Your task to perform on an android device: Open calendar and show me the second week of next month Image 0: 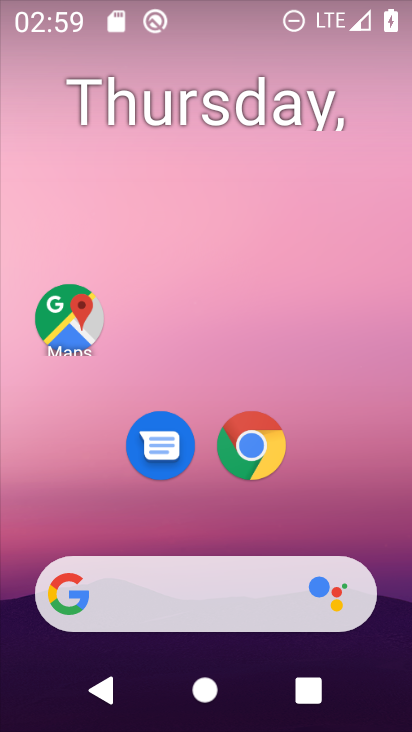
Step 0: press home button
Your task to perform on an android device: Open calendar and show me the second week of next month Image 1: 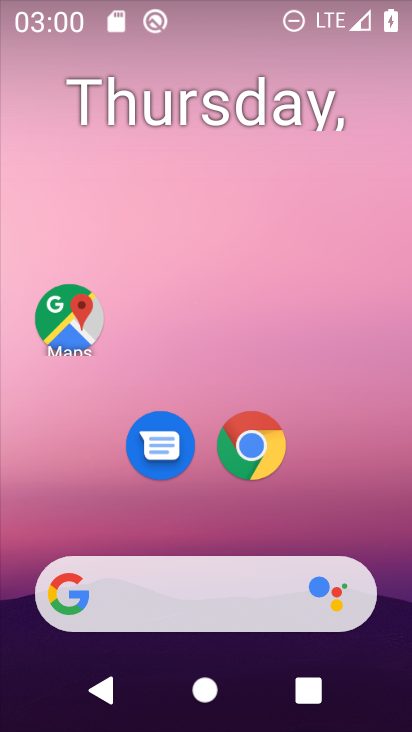
Step 1: drag from (56, 476) to (254, 132)
Your task to perform on an android device: Open calendar and show me the second week of next month Image 2: 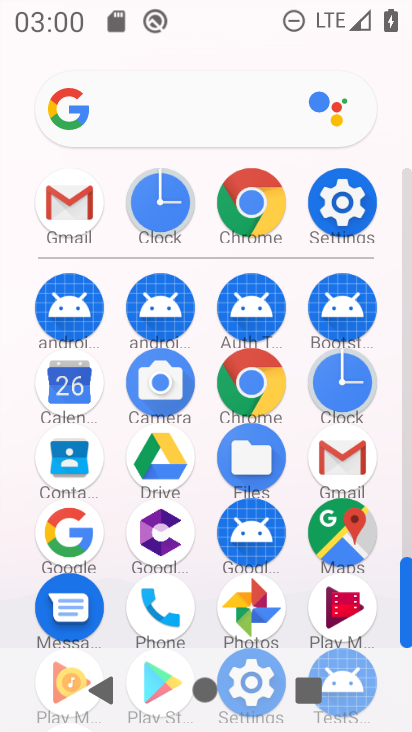
Step 2: click (64, 388)
Your task to perform on an android device: Open calendar and show me the second week of next month Image 3: 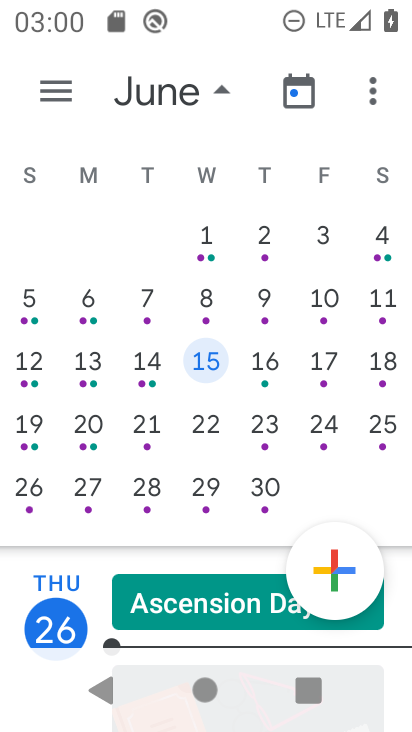
Step 3: click (205, 293)
Your task to perform on an android device: Open calendar and show me the second week of next month Image 4: 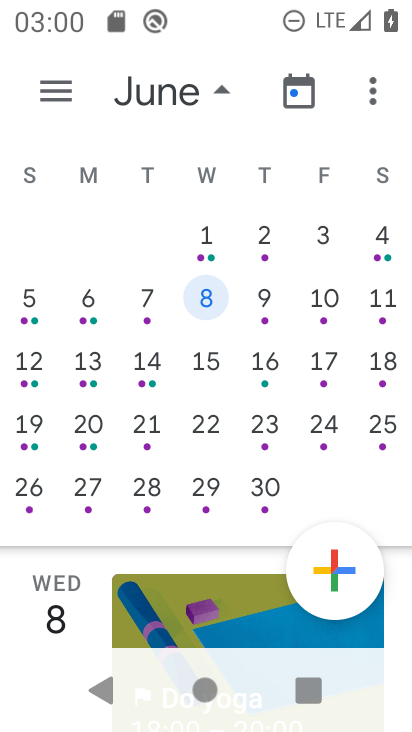
Step 4: click (91, 303)
Your task to perform on an android device: Open calendar and show me the second week of next month Image 5: 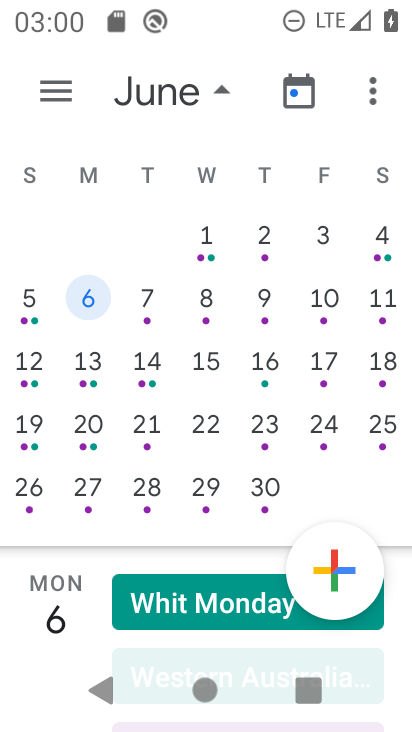
Step 5: click (144, 304)
Your task to perform on an android device: Open calendar and show me the second week of next month Image 6: 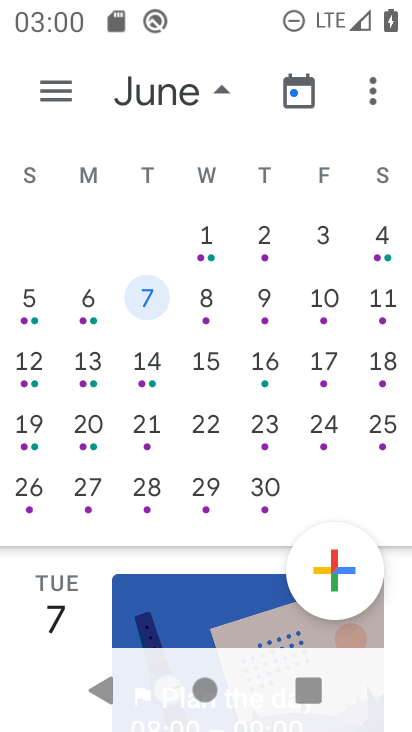
Step 6: click (260, 292)
Your task to perform on an android device: Open calendar and show me the second week of next month Image 7: 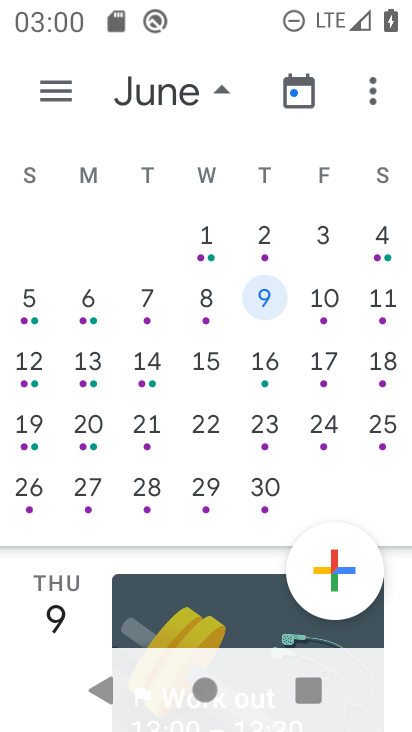
Step 7: click (303, 298)
Your task to perform on an android device: Open calendar and show me the second week of next month Image 8: 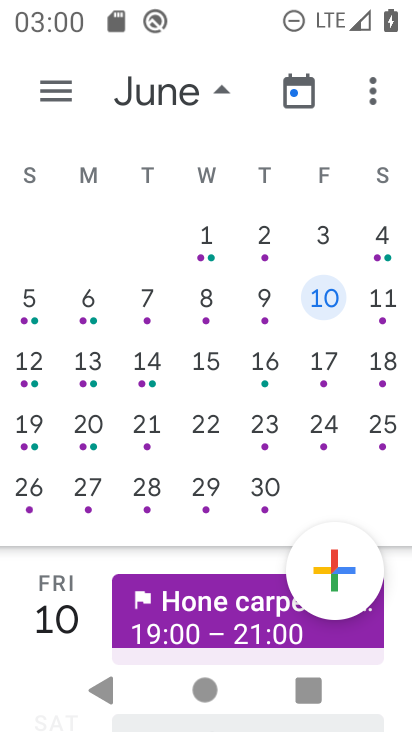
Step 8: click (95, 313)
Your task to perform on an android device: Open calendar and show me the second week of next month Image 9: 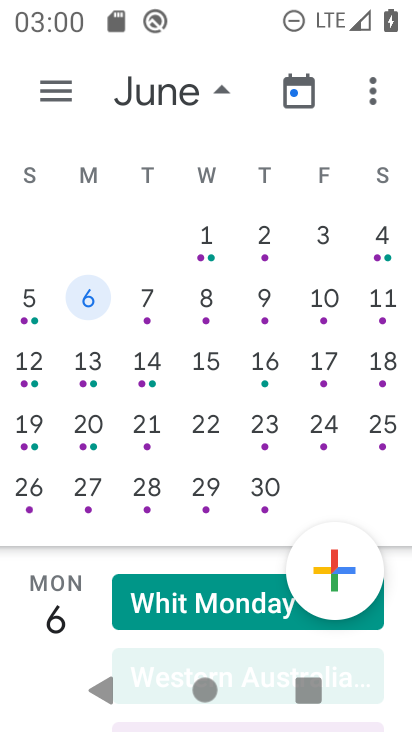
Step 9: click (154, 300)
Your task to perform on an android device: Open calendar and show me the second week of next month Image 10: 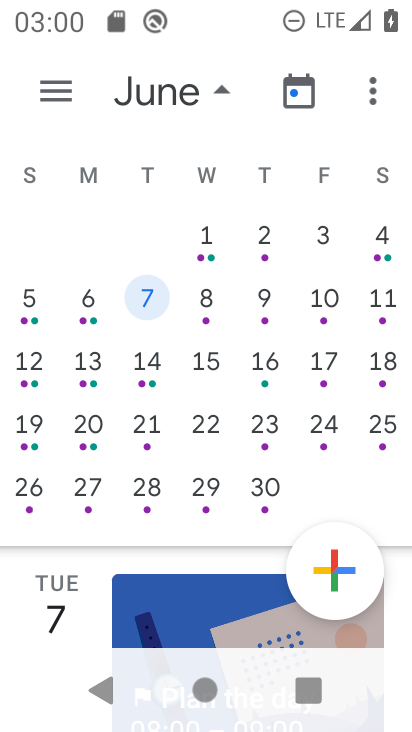
Step 10: click (197, 305)
Your task to perform on an android device: Open calendar and show me the second week of next month Image 11: 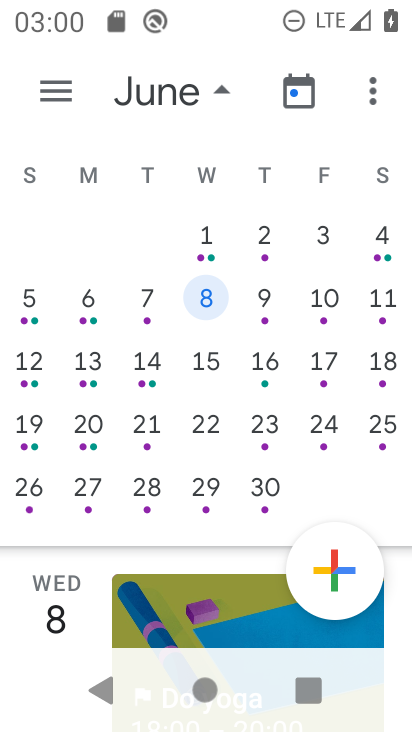
Step 11: click (262, 301)
Your task to perform on an android device: Open calendar and show me the second week of next month Image 12: 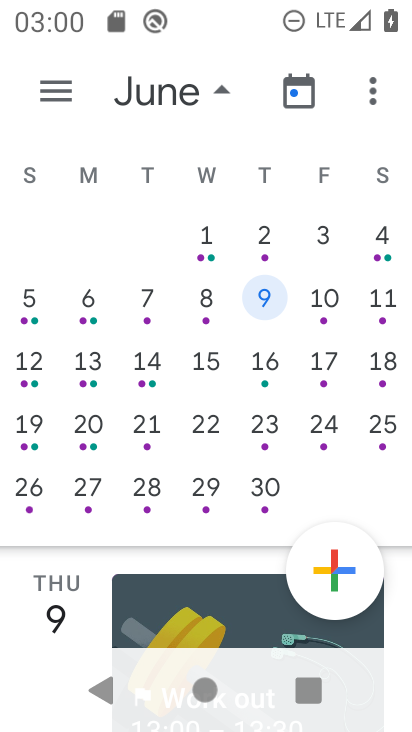
Step 12: click (318, 293)
Your task to perform on an android device: Open calendar and show me the second week of next month Image 13: 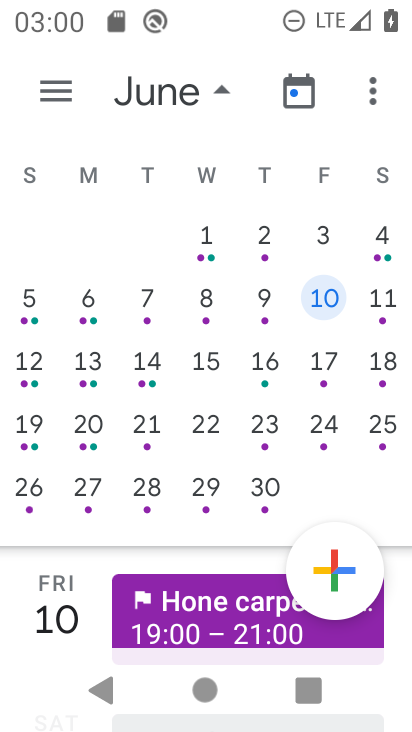
Step 13: click (88, 302)
Your task to perform on an android device: Open calendar and show me the second week of next month Image 14: 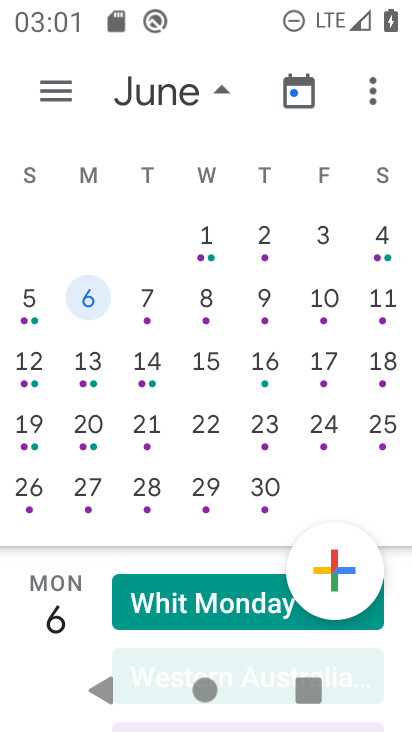
Step 14: click (134, 305)
Your task to perform on an android device: Open calendar and show me the second week of next month Image 15: 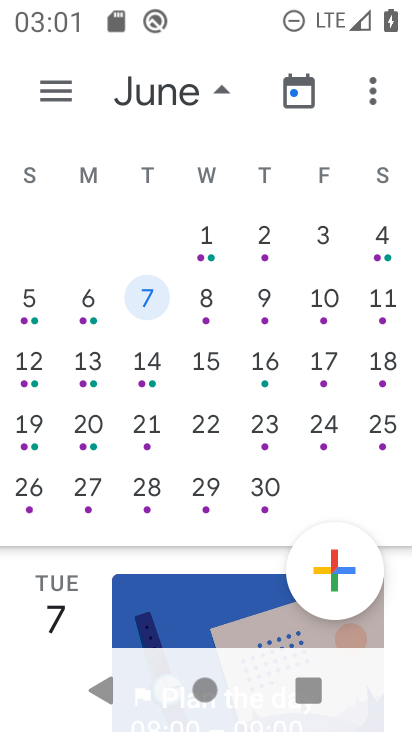
Step 15: click (191, 313)
Your task to perform on an android device: Open calendar and show me the second week of next month Image 16: 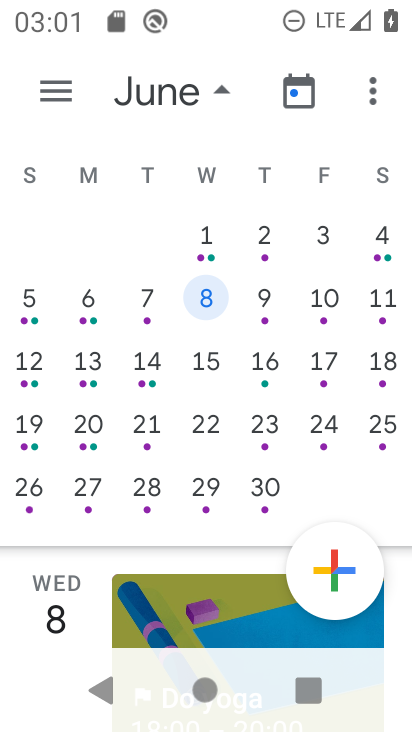
Step 16: task complete